Your task to perform on an android device: See recent photos Image 0: 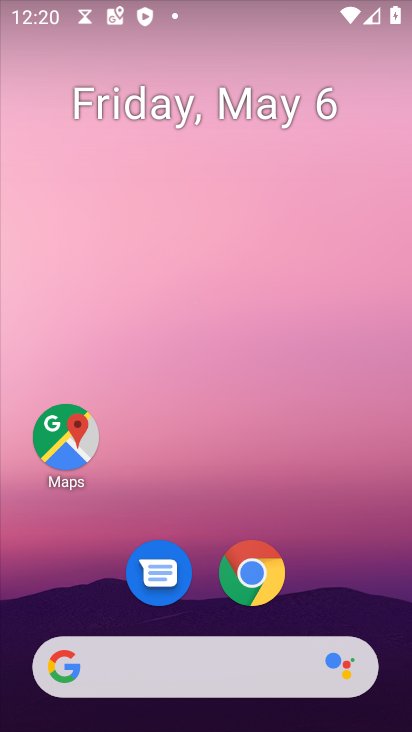
Step 0: drag from (320, 577) to (320, 201)
Your task to perform on an android device: See recent photos Image 1: 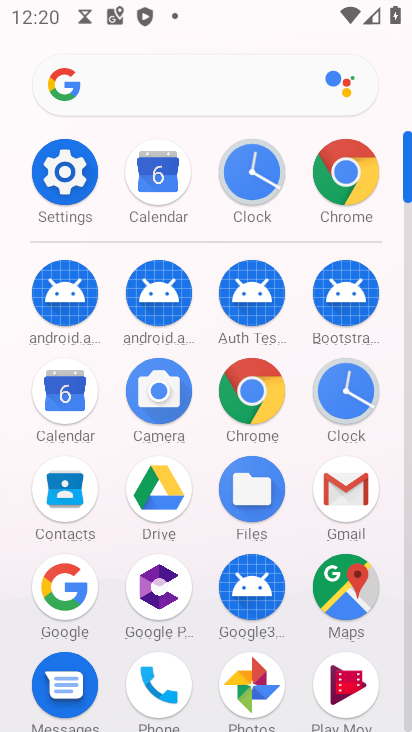
Step 1: click (255, 672)
Your task to perform on an android device: See recent photos Image 2: 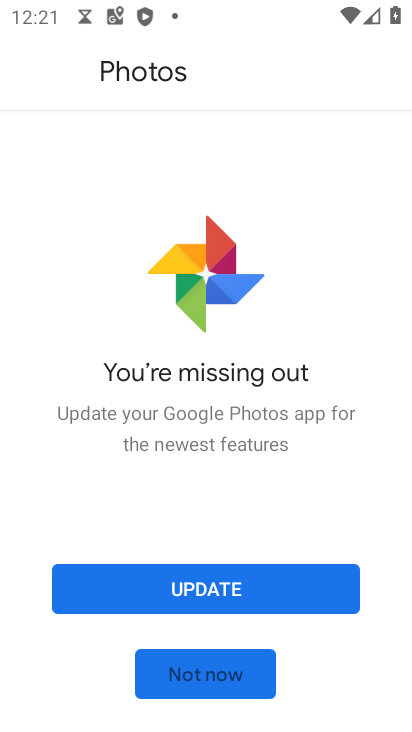
Step 2: click (222, 685)
Your task to perform on an android device: See recent photos Image 3: 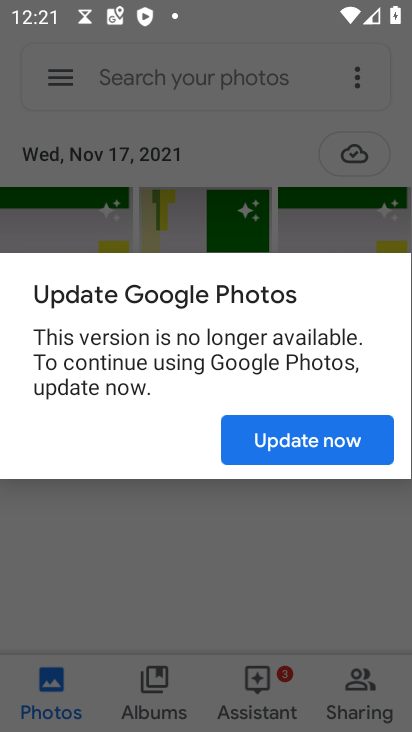
Step 3: click (314, 440)
Your task to perform on an android device: See recent photos Image 4: 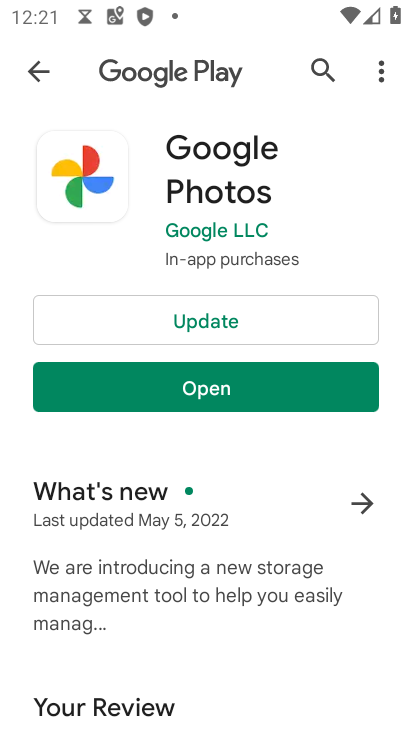
Step 4: press back button
Your task to perform on an android device: See recent photos Image 5: 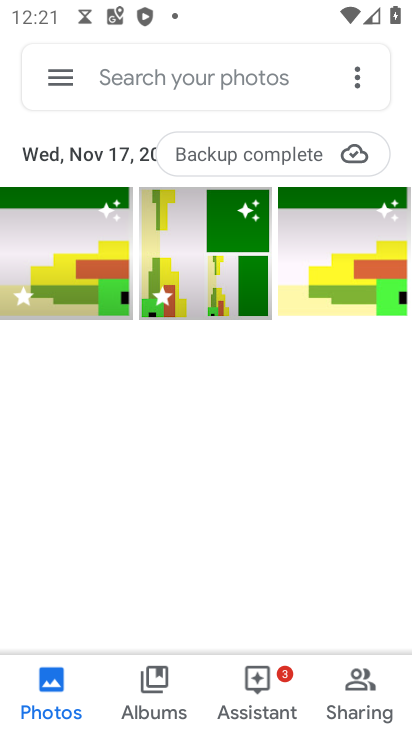
Step 5: click (79, 248)
Your task to perform on an android device: See recent photos Image 6: 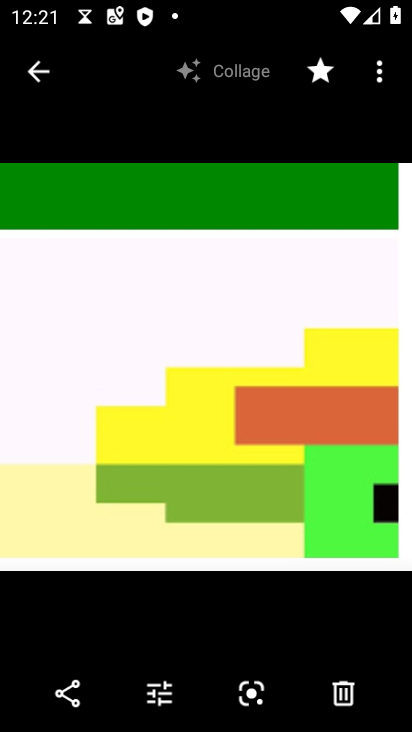
Step 6: task complete